Your task to perform on an android device: toggle location history Image 0: 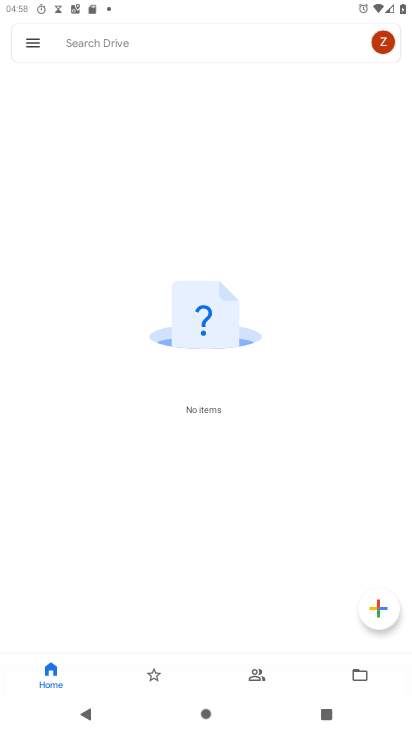
Step 0: press home button
Your task to perform on an android device: toggle location history Image 1: 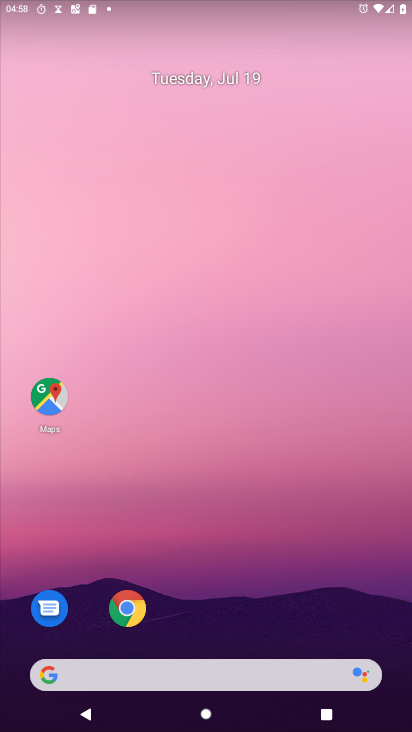
Step 1: drag from (213, 679) to (256, 197)
Your task to perform on an android device: toggle location history Image 2: 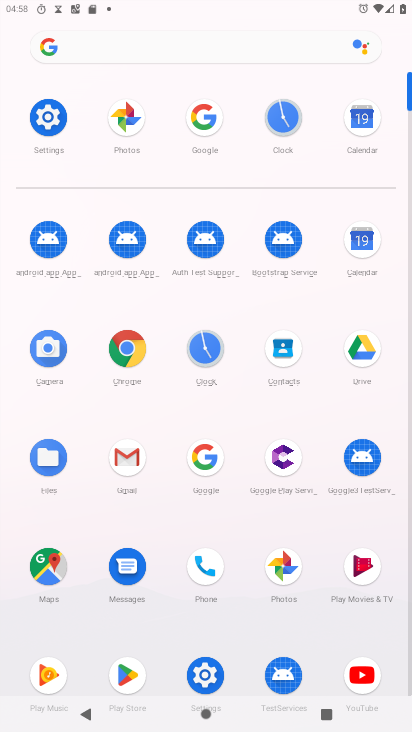
Step 2: click (47, 118)
Your task to perform on an android device: toggle location history Image 3: 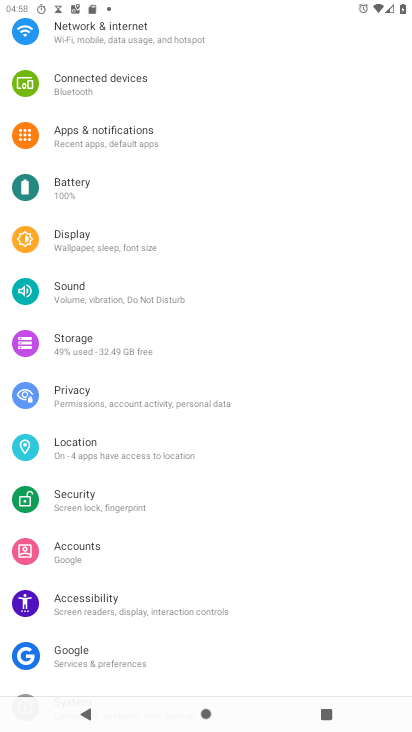
Step 3: click (84, 448)
Your task to perform on an android device: toggle location history Image 4: 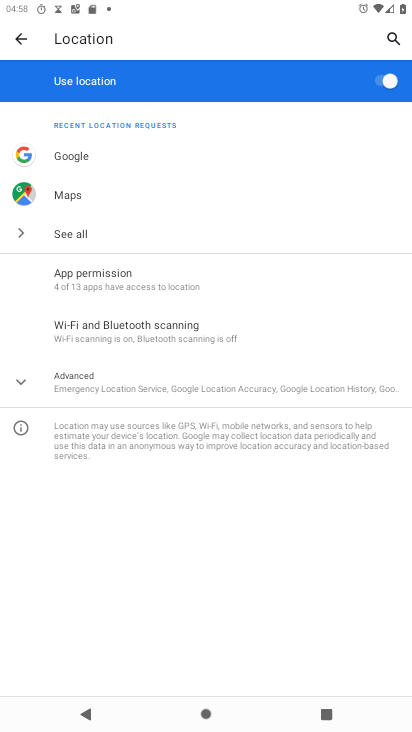
Step 4: click (146, 388)
Your task to perform on an android device: toggle location history Image 5: 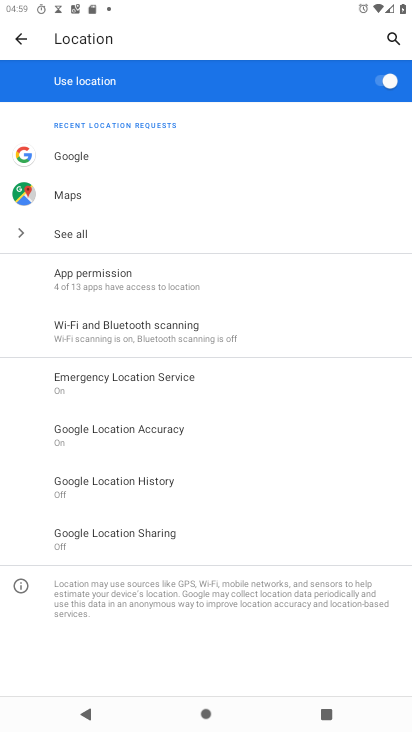
Step 5: click (133, 479)
Your task to perform on an android device: toggle location history Image 6: 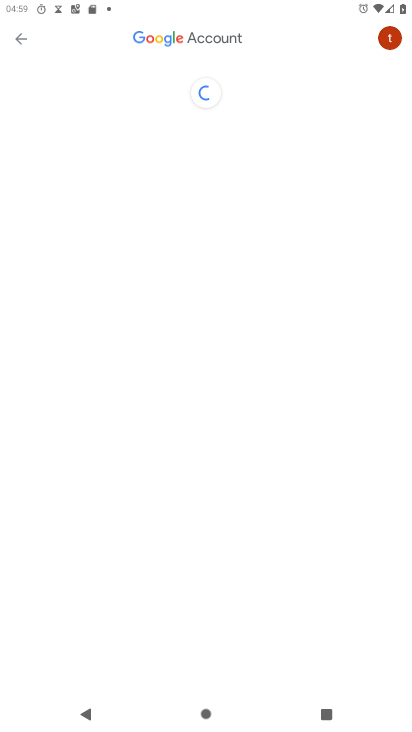
Step 6: click (213, 312)
Your task to perform on an android device: toggle location history Image 7: 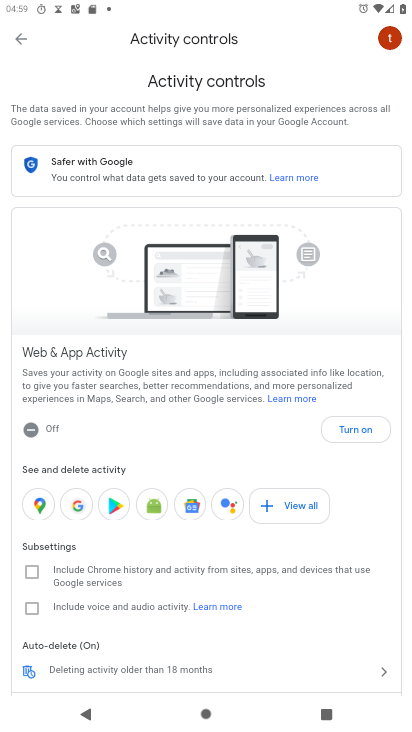
Step 7: click (359, 424)
Your task to perform on an android device: toggle location history Image 8: 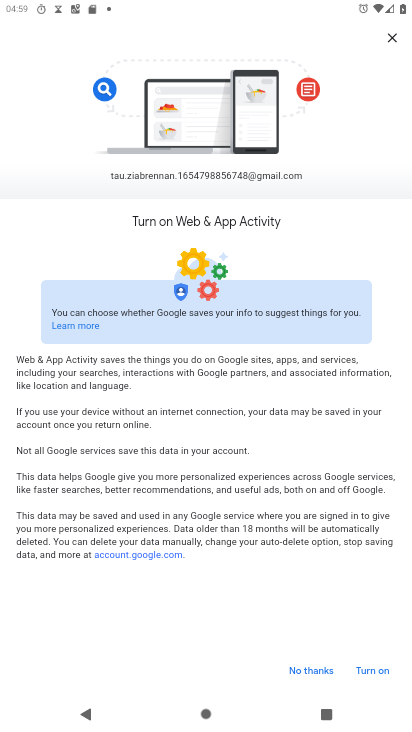
Step 8: click (379, 674)
Your task to perform on an android device: toggle location history Image 9: 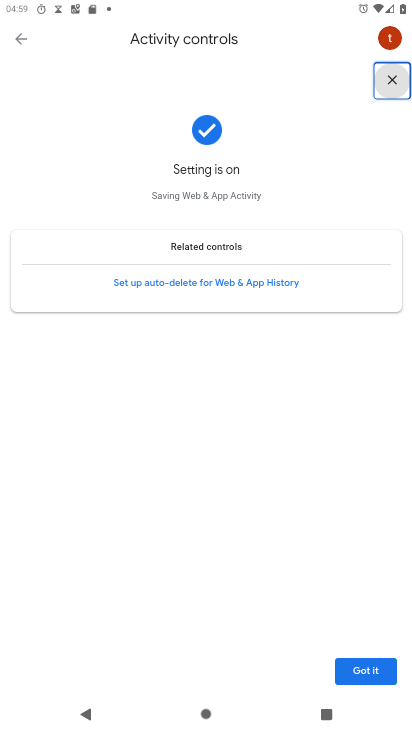
Step 9: click (364, 672)
Your task to perform on an android device: toggle location history Image 10: 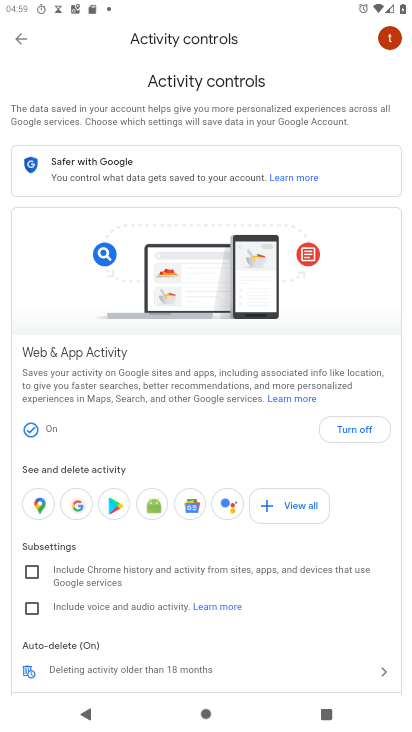
Step 10: task complete